Your task to perform on an android device: turn off smart reply in the gmail app Image 0: 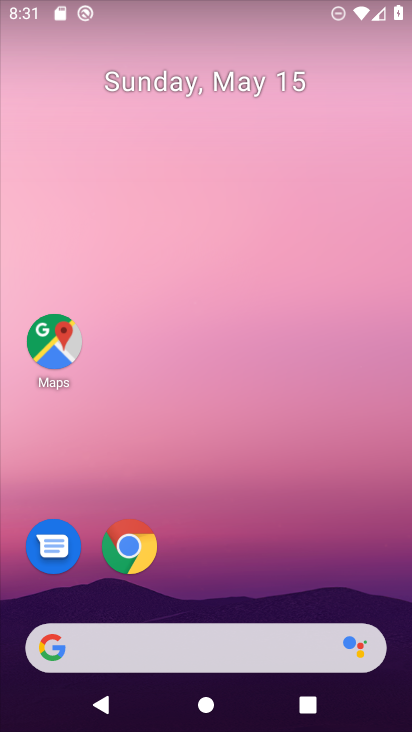
Step 0: drag from (242, 511) to (236, 51)
Your task to perform on an android device: turn off smart reply in the gmail app Image 1: 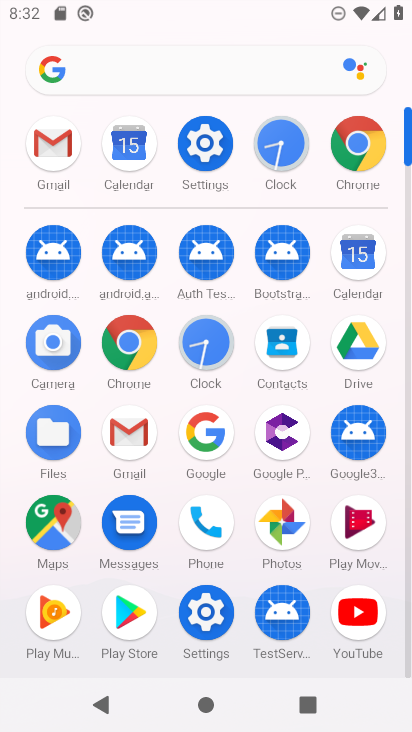
Step 1: click (53, 142)
Your task to perform on an android device: turn off smart reply in the gmail app Image 2: 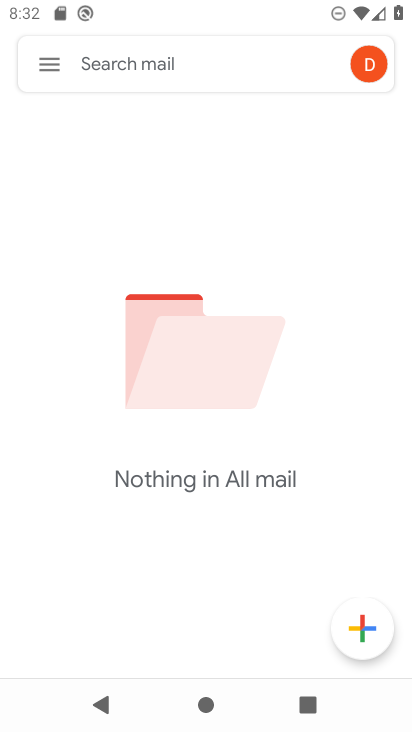
Step 2: click (43, 58)
Your task to perform on an android device: turn off smart reply in the gmail app Image 3: 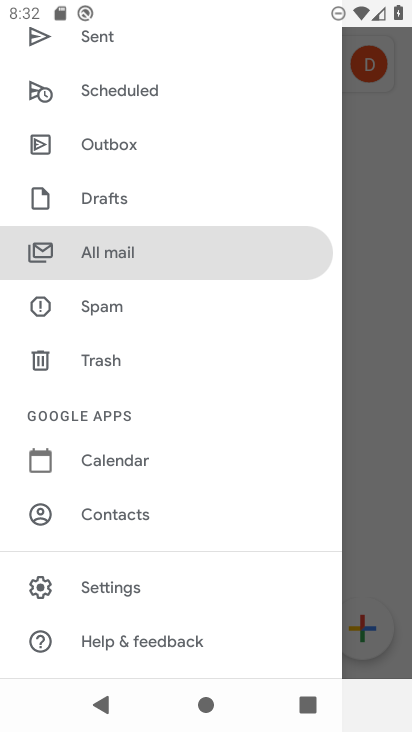
Step 3: click (127, 587)
Your task to perform on an android device: turn off smart reply in the gmail app Image 4: 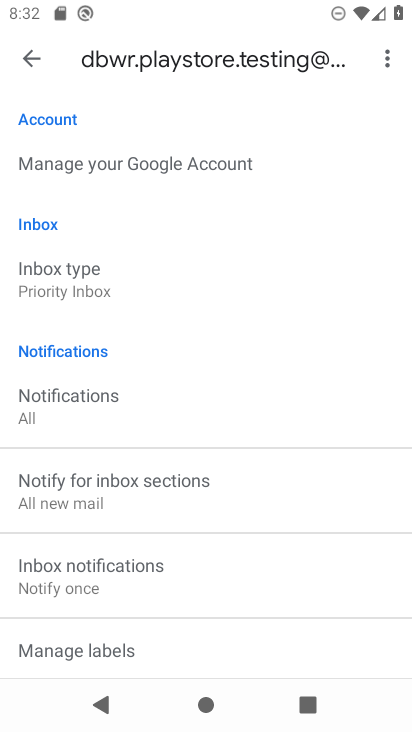
Step 4: drag from (208, 588) to (232, 98)
Your task to perform on an android device: turn off smart reply in the gmail app Image 5: 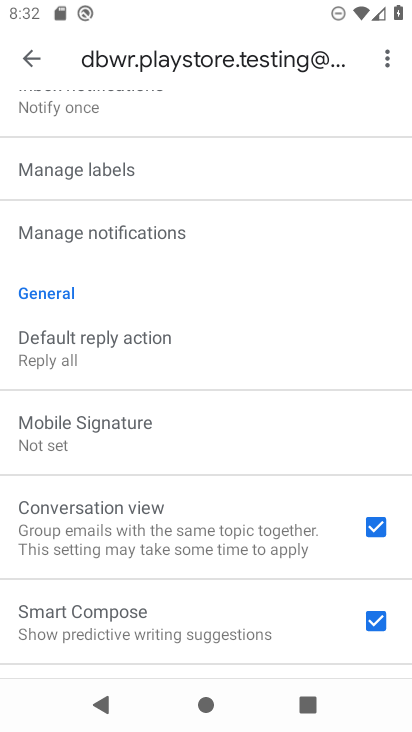
Step 5: drag from (224, 449) to (212, 154)
Your task to perform on an android device: turn off smart reply in the gmail app Image 6: 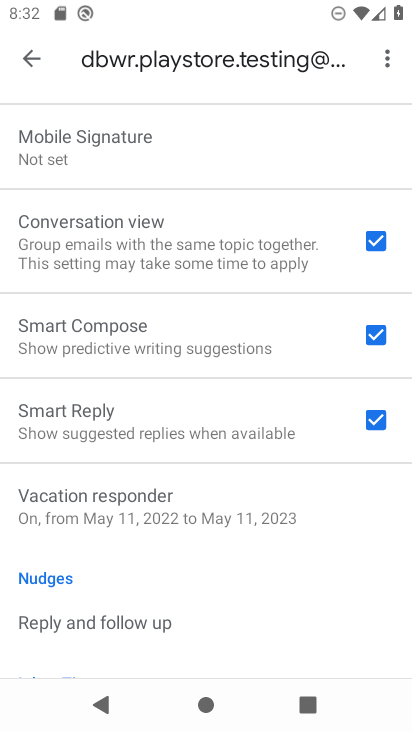
Step 6: click (380, 412)
Your task to perform on an android device: turn off smart reply in the gmail app Image 7: 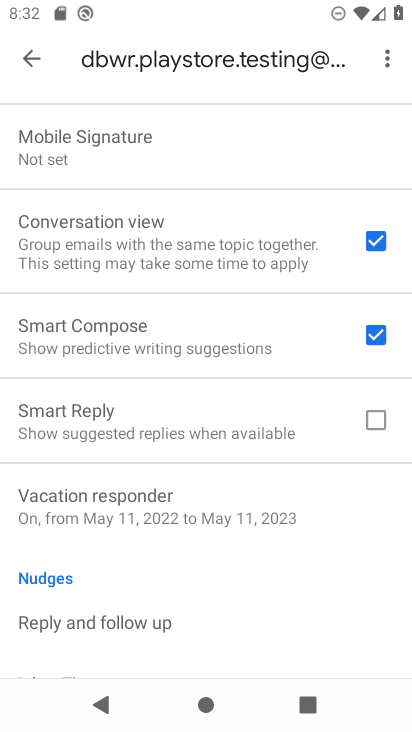
Step 7: task complete